Your task to perform on an android device: turn pop-ups on in chrome Image 0: 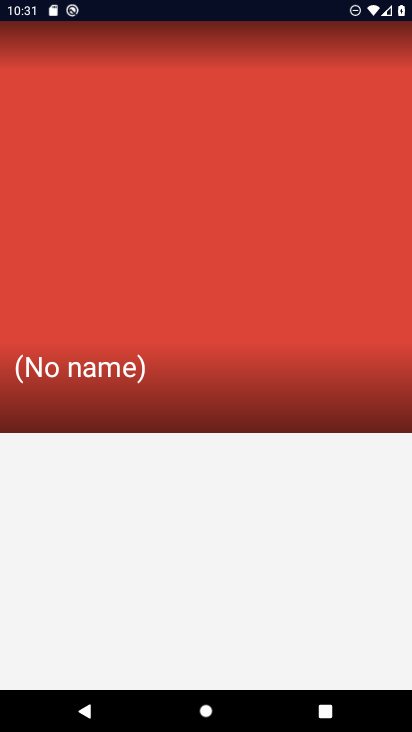
Step 0: press home button
Your task to perform on an android device: turn pop-ups on in chrome Image 1: 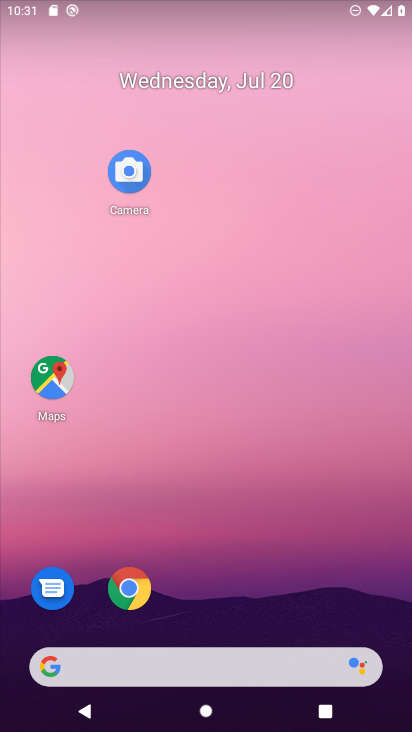
Step 1: click (120, 577)
Your task to perform on an android device: turn pop-ups on in chrome Image 2: 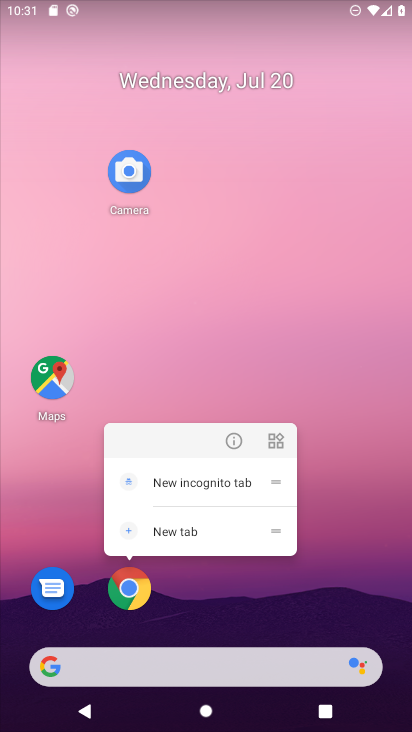
Step 2: click (125, 573)
Your task to perform on an android device: turn pop-ups on in chrome Image 3: 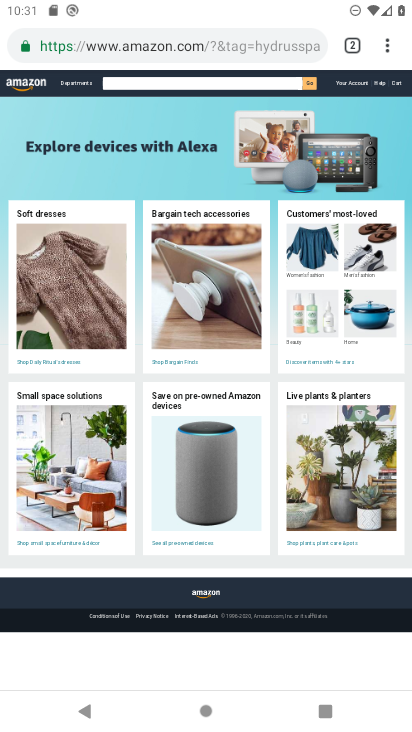
Step 3: drag from (389, 40) to (230, 548)
Your task to perform on an android device: turn pop-ups on in chrome Image 4: 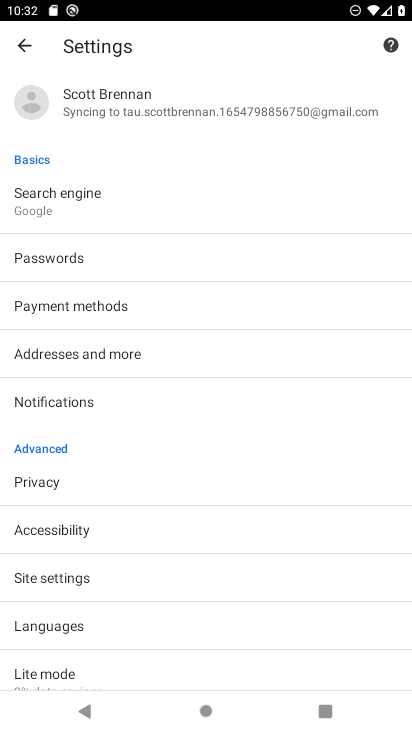
Step 4: drag from (101, 459) to (117, 112)
Your task to perform on an android device: turn pop-ups on in chrome Image 5: 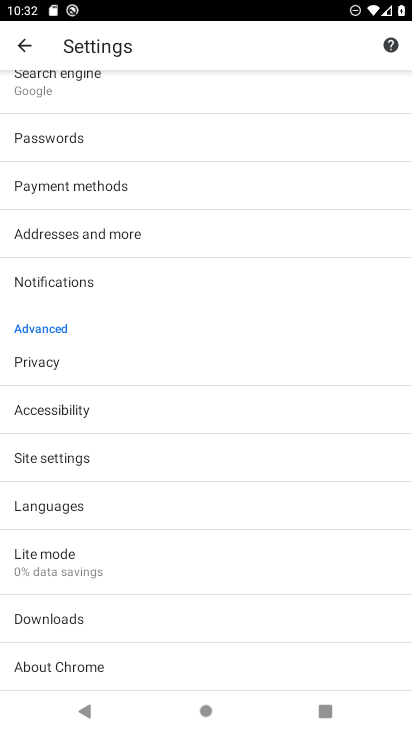
Step 5: click (76, 464)
Your task to perform on an android device: turn pop-ups on in chrome Image 6: 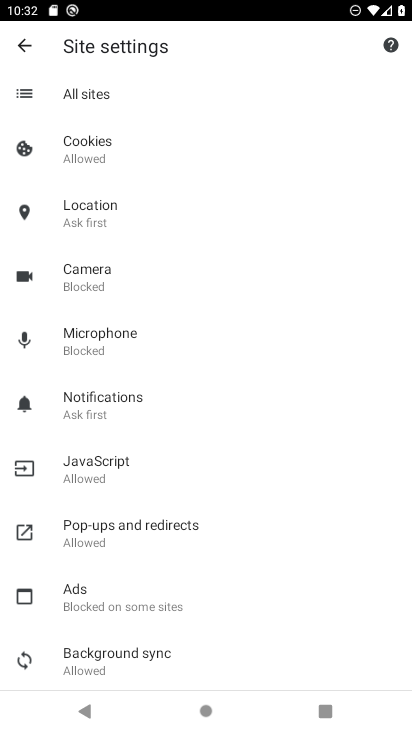
Step 6: click (134, 539)
Your task to perform on an android device: turn pop-ups on in chrome Image 7: 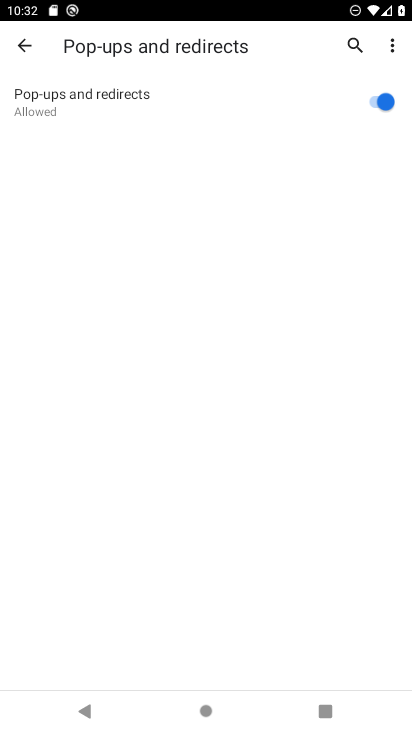
Step 7: task complete